Your task to perform on an android device: What's on my calendar tomorrow? Image 0: 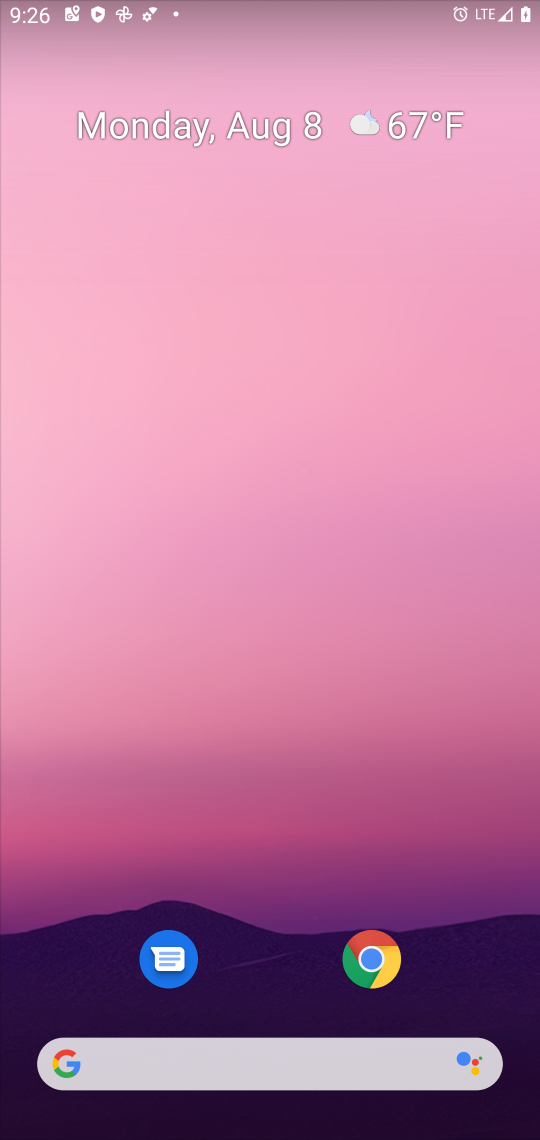
Step 0: drag from (464, 977) to (292, 48)
Your task to perform on an android device: What's on my calendar tomorrow? Image 1: 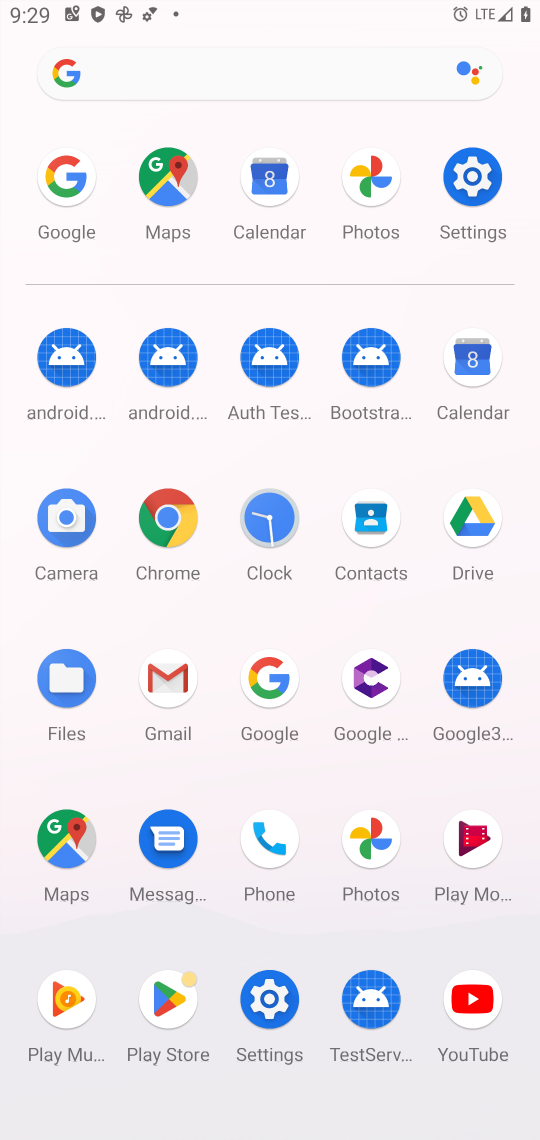
Step 1: click (474, 357)
Your task to perform on an android device: What's on my calendar tomorrow? Image 2: 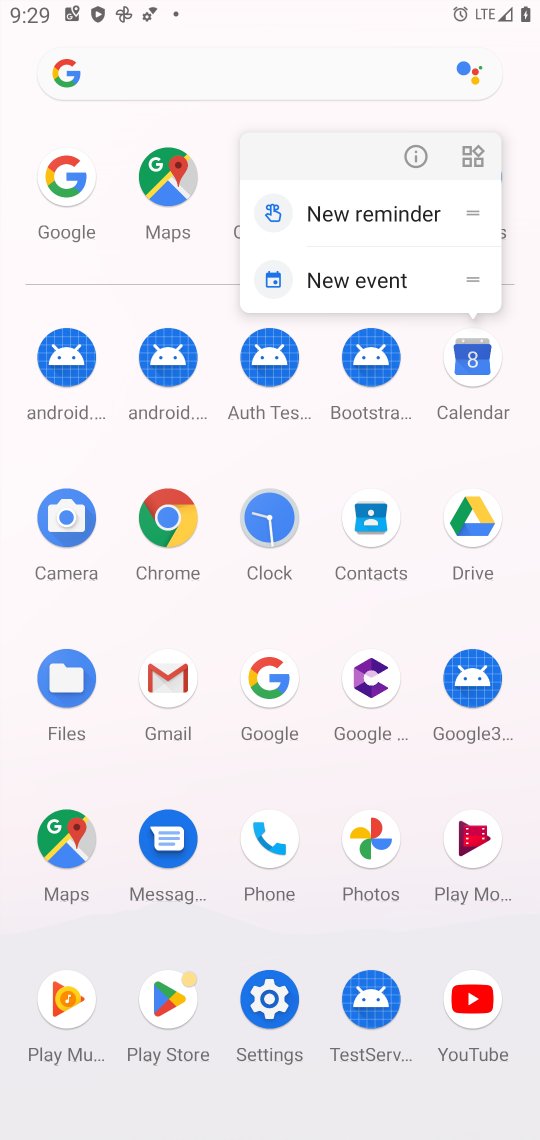
Step 2: click (494, 374)
Your task to perform on an android device: What's on my calendar tomorrow? Image 3: 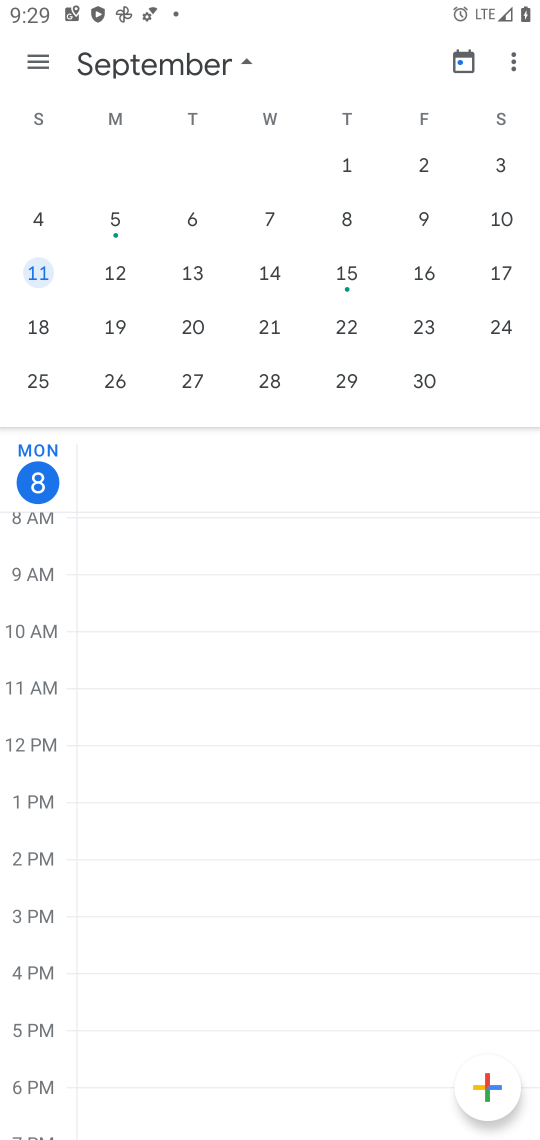
Step 3: task complete